Your task to perform on an android device: Check the news Image 0: 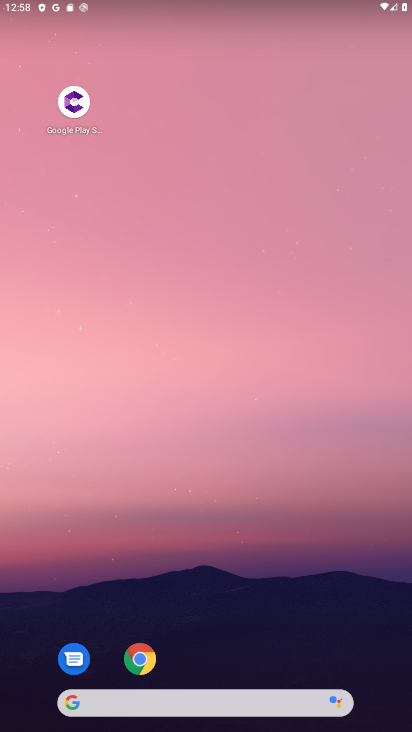
Step 0: drag from (18, 392) to (390, 377)
Your task to perform on an android device: Check the news Image 1: 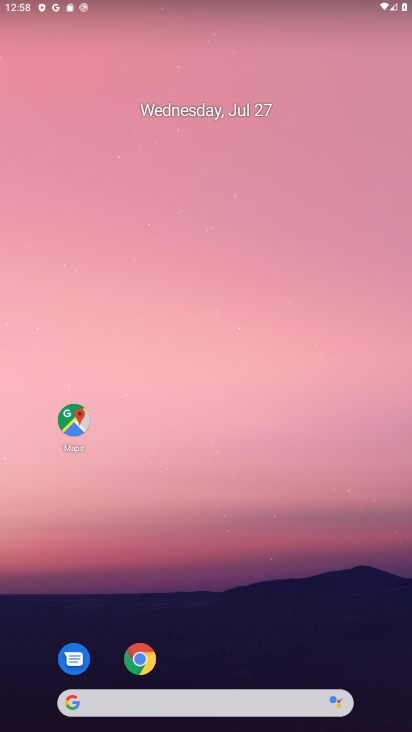
Step 1: task complete